Your task to perform on an android device: Open maps Image 0: 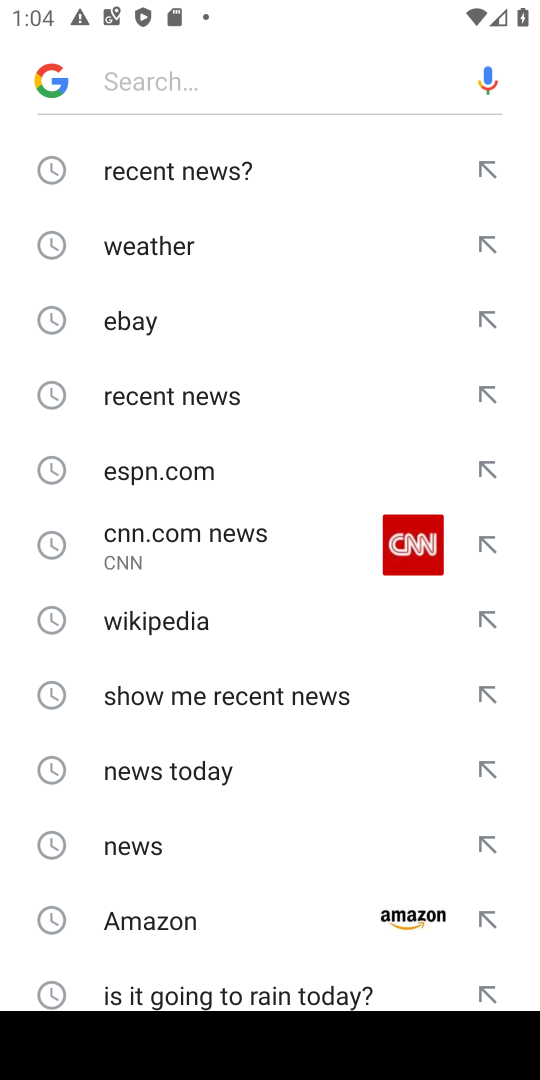
Step 0: press home button
Your task to perform on an android device: Open maps Image 1: 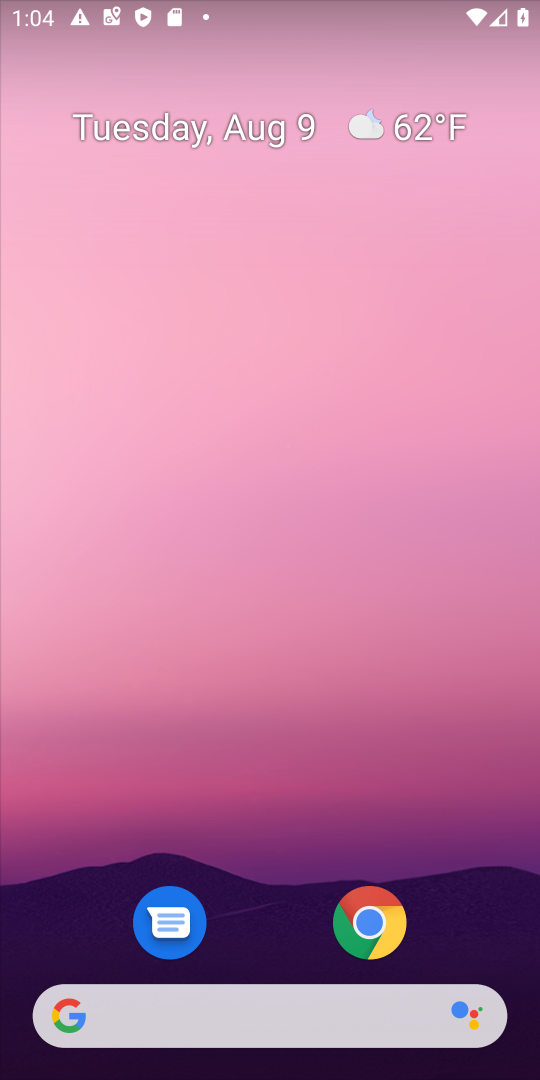
Step 1: drag from (295, 953) to (239, 286)
Your task to perform on an android device: Open maps Image 2: 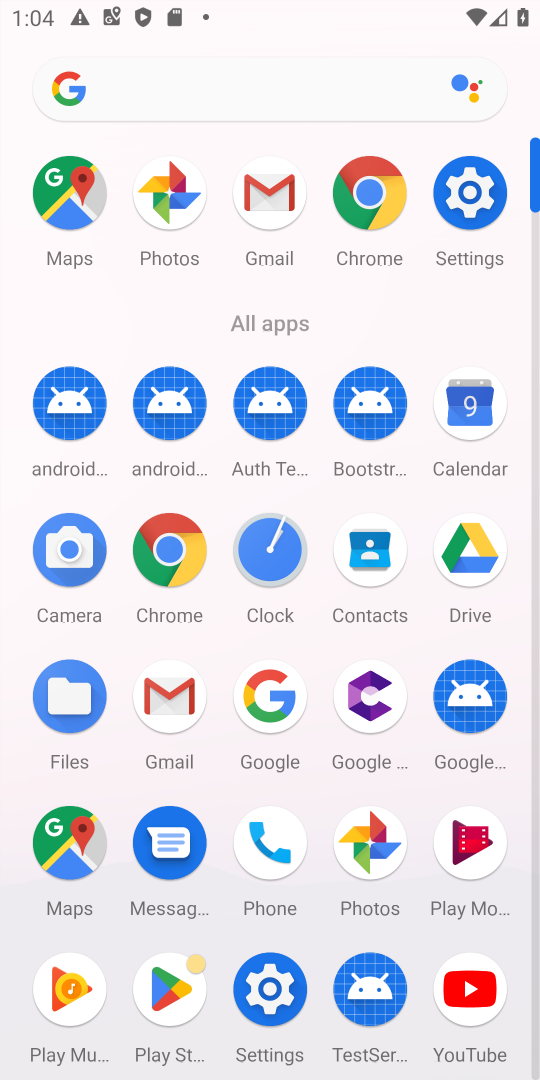
Step 2: click (81, 866)
Your task to perform on an android device: Open maps Image 3: 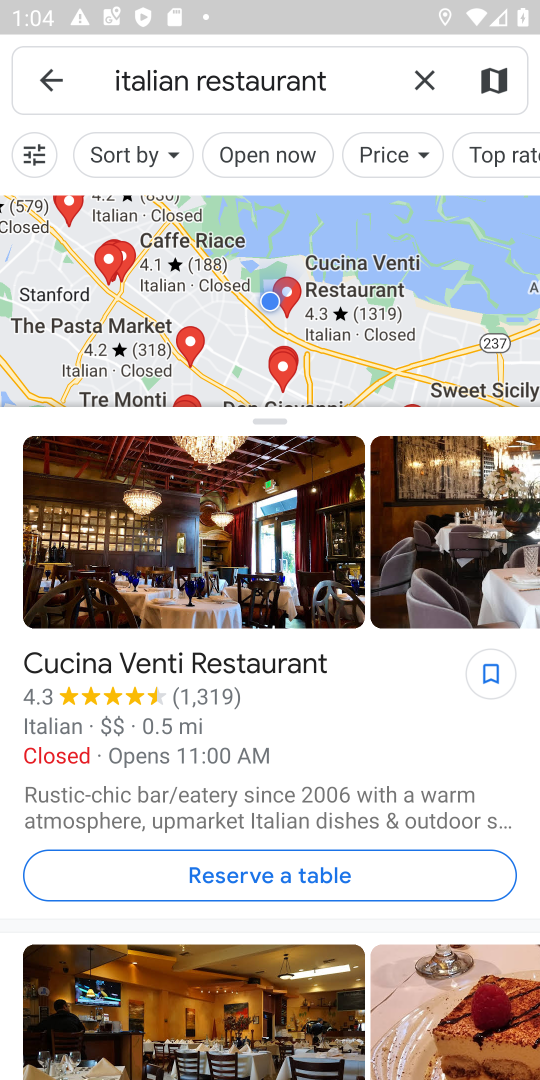
Step 3: task complete